Your task to perform on an android device: Search for Mexican restaurants on Maps Image 0: 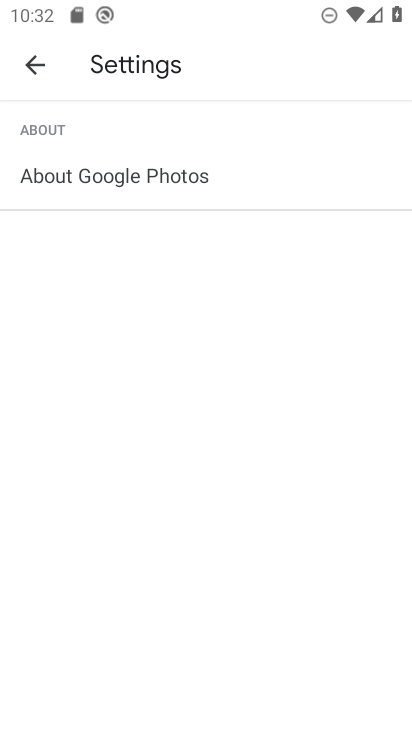
Step 0: press home button
Your task to perform on an android device: Search for Mexican restaurants on Maps Image 1: 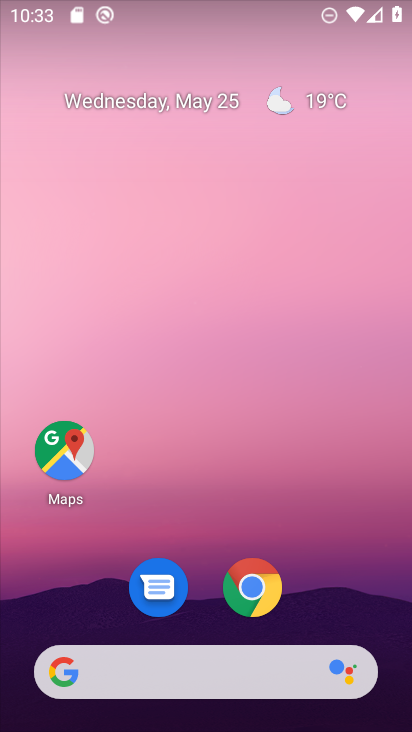
Step 1: click (63, 446)
Your task to perform on an android device: Search for Mexican restaurants on Maps Image 2: 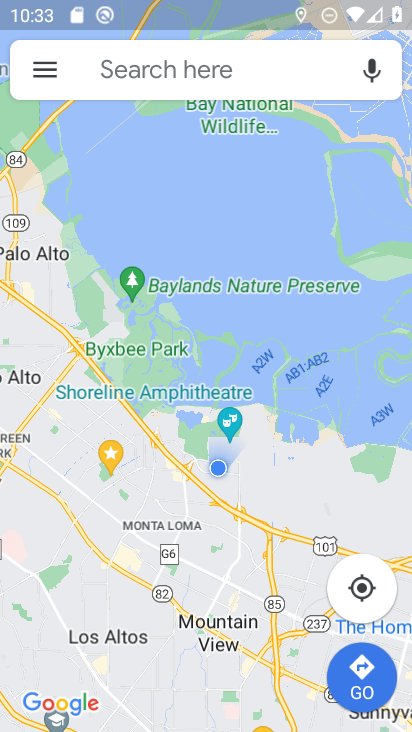
Step 2: click (123, 73)
Your task to perform on an android device: Search for Mexican restaurants on Maps Image 3: 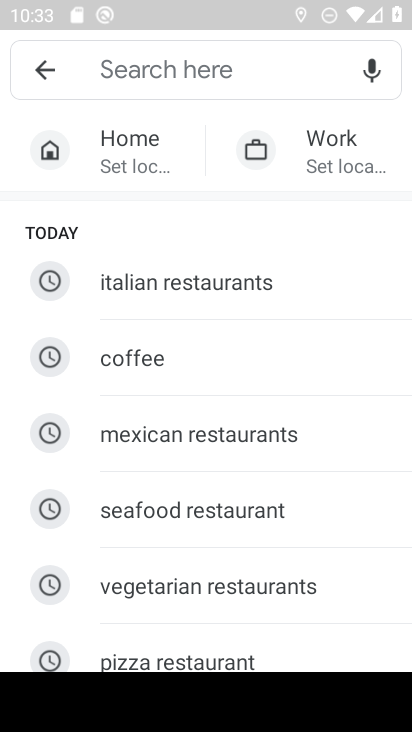
Step 3: type "mexican restaurants"
Your task to perform on an android device: Search for Mexican restaurants on Maps Image 4: 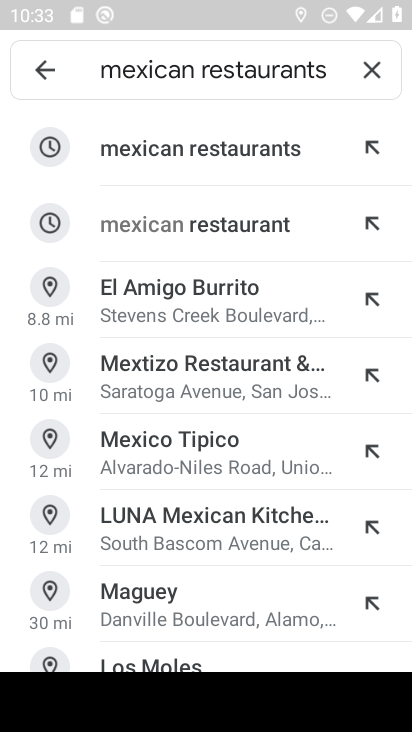
Step 4: click (135, 157)
Your task to perform on an android device: Search for Mexican restaurants on Maps Image 5: 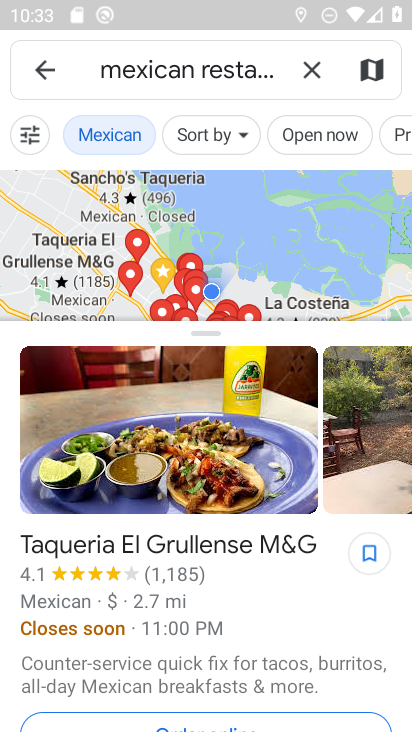
Step 5: task complete